Your task to perform on an android device: Search for vegetarian restaurants on Maps Image 0: 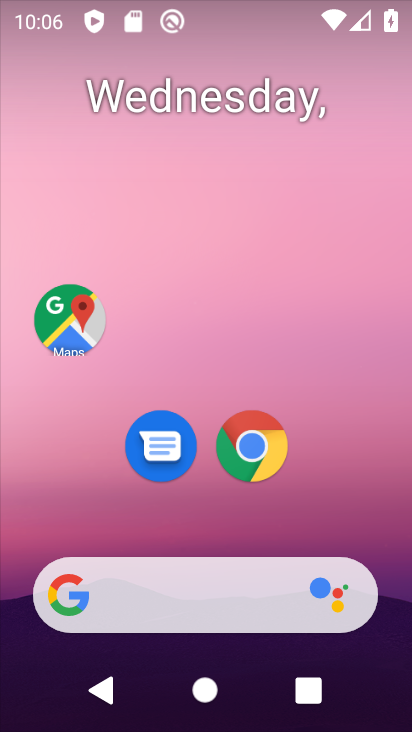
Step 0: click (70, 327)
Your task to perform on an android device: Search for vegetarian restaurants on Maps Image 1: 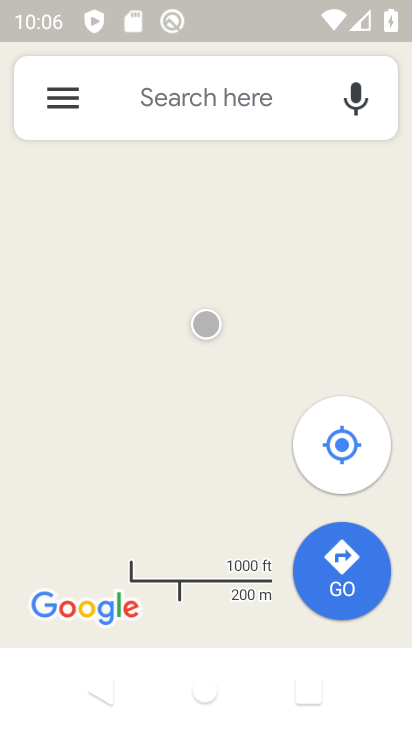
Step 1: click (139, 115)
Your task to perform on an android device: Search for vegetarian restaurants on Maps Image 2: 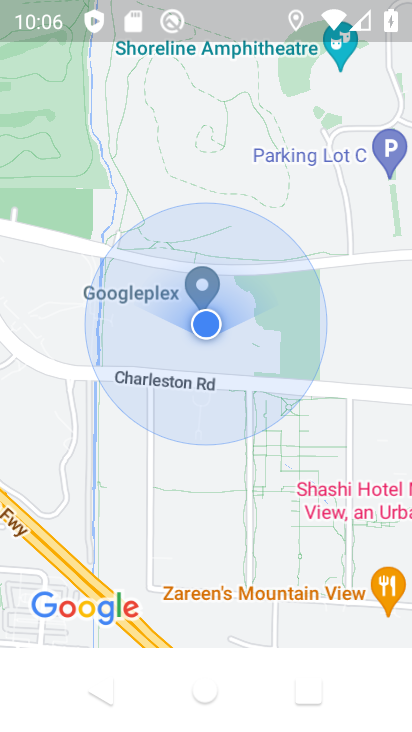
Step 2: type "vegetarian restaurants"
Your task to perform on an android device: Search for vegetarian restaurants on Maps Image 3: 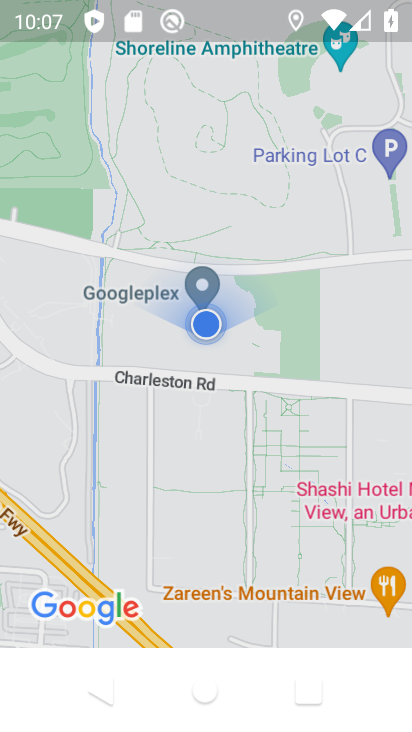
Step 3: press back button
Your task to perform on an android device: Search for vegetarian restaurants on Maps Image 4: 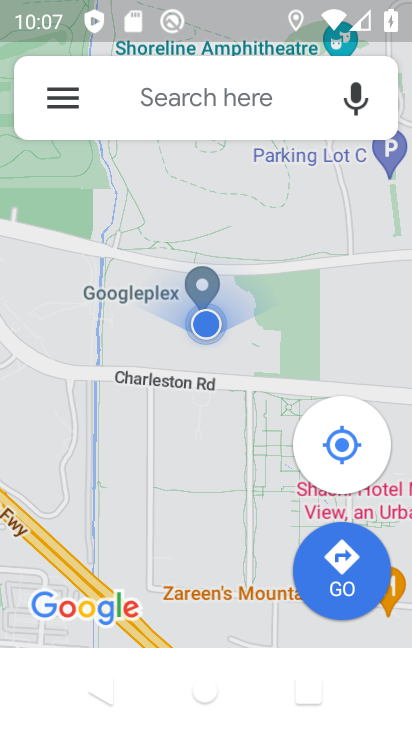
Step 4: click (196, 103)
Your task to perform on an android device: Search for vegetarian restaurants on Maps Image 5: 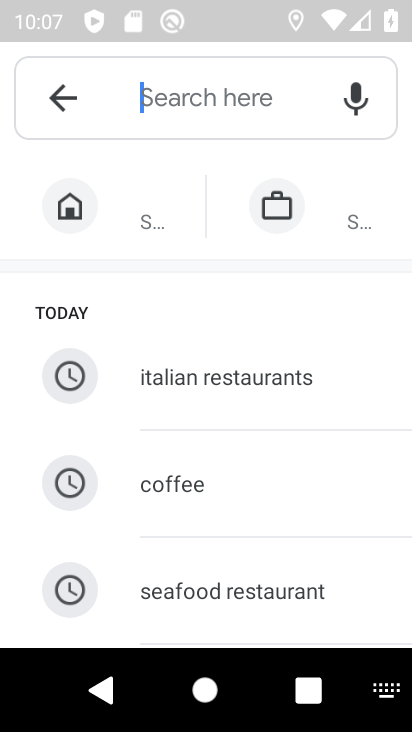
Step 5: drag from (241, 591) to (241, 228)
Your task to perform on an android device: Search for vegetarian restaurants on Maps Image 6: 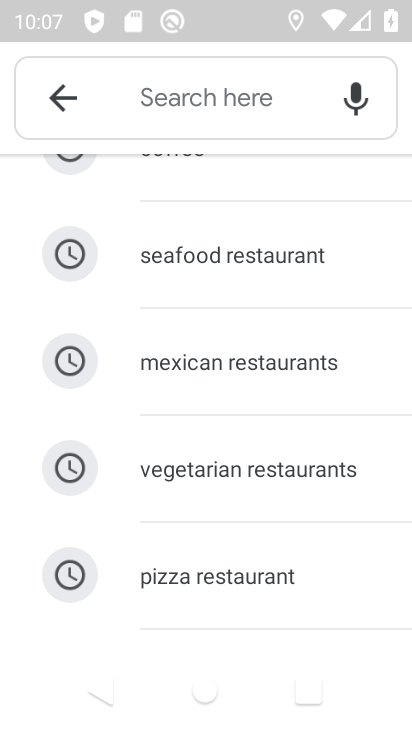
Step 6: click (257, 483)
Your task to perform on an android device: Search for vegetarian restaurants on Maps Image 7: 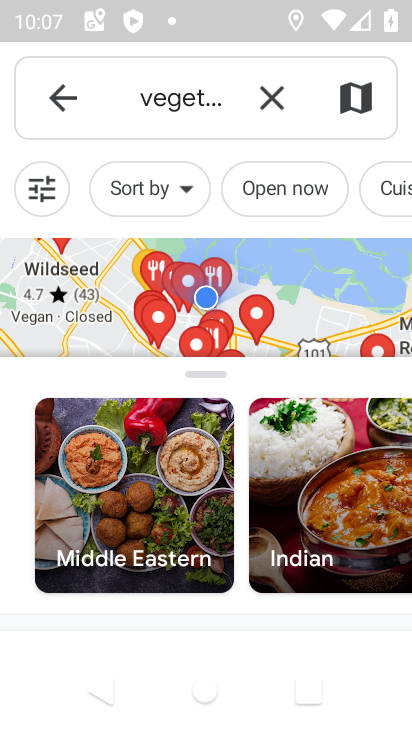
Step 7: task complete